Your task to perform on an android device: remove spam from my inbox in the gmail app Image 0: 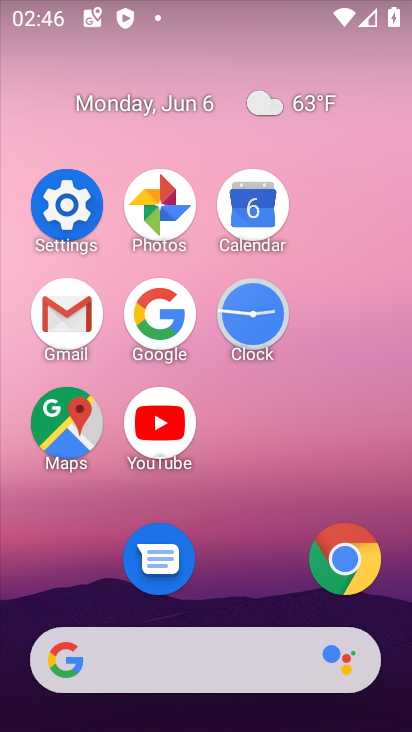
Step 0: click (63, 302)
Your task to perform on an android device: remove spam from my inbox in the gmail app Image 1: 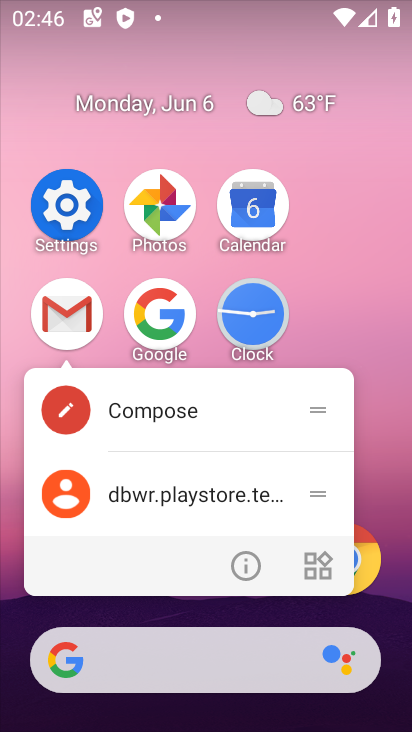
Step 1: click (54, 314)
Your task to perform on an android device: remove spam from my inbox in the gmail app Image 2: 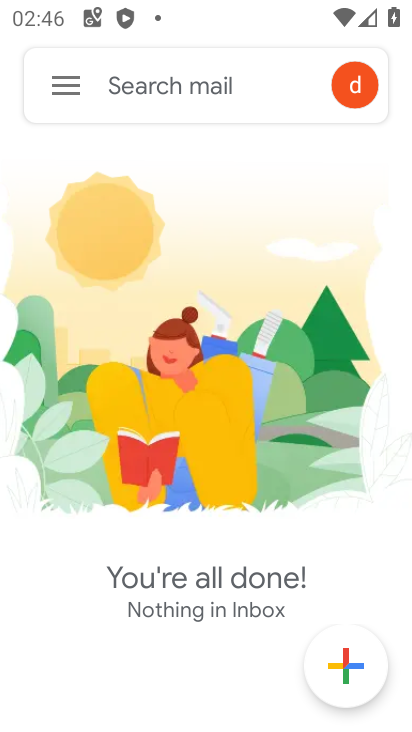
Step 2: click (48, 90)
Your task to perform on an android device: remove spam from my inbox in the gmail app Image 3: 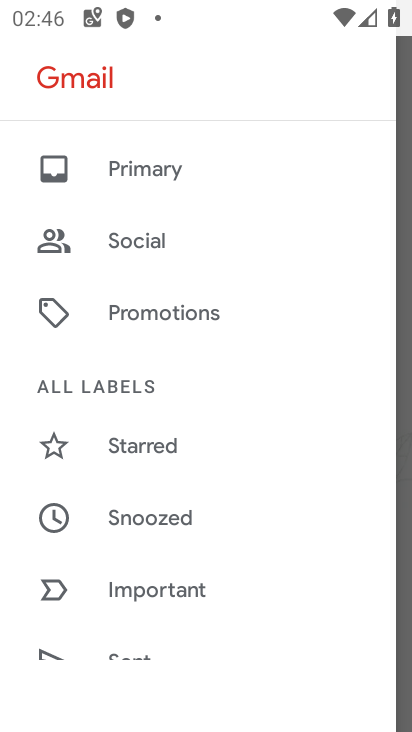
Step 3: drag from (254, 440) to (215, 172)
Your task to perform on an android device: remove spam from my inbox in the gmail app Image 4: 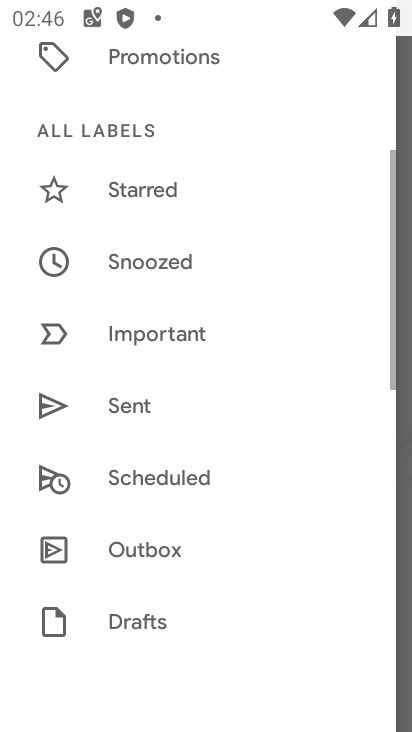
Step 4: drag from (220, 548) to (208, 195)
Your task to perform on an android device: remove spam from my inbox in the gmail app Image 5: 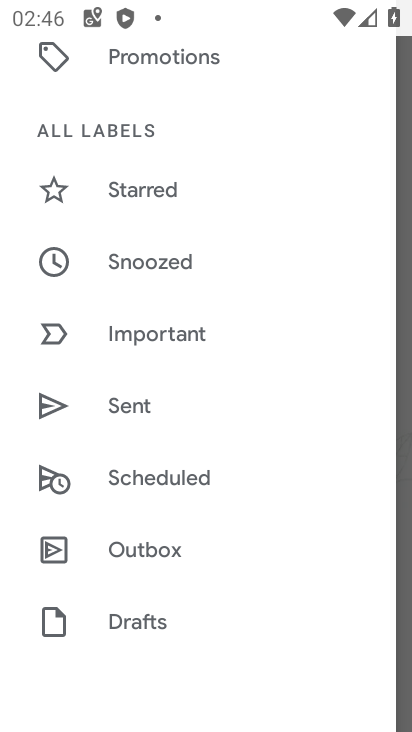
Step 5: drag from (236, 195) to (308, 600)
Your task to perform on an android device: remove spam from my inbox in the gmail app Image 6: 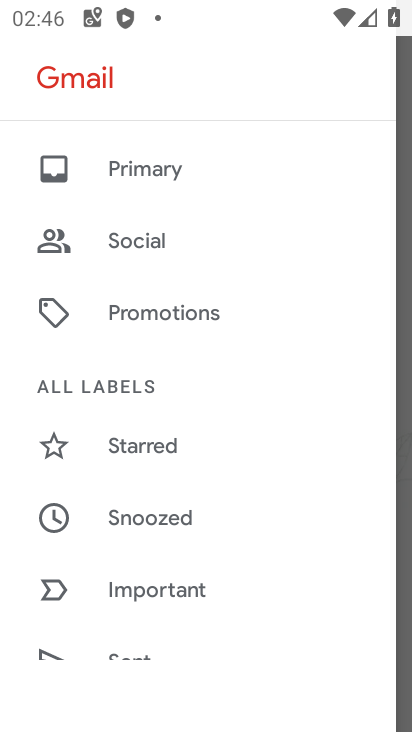
Step 6: drag from (256, 198) to (280, 539)
Your task to perform on an android device: remove spam from my inbox in the gmail app Image 7: 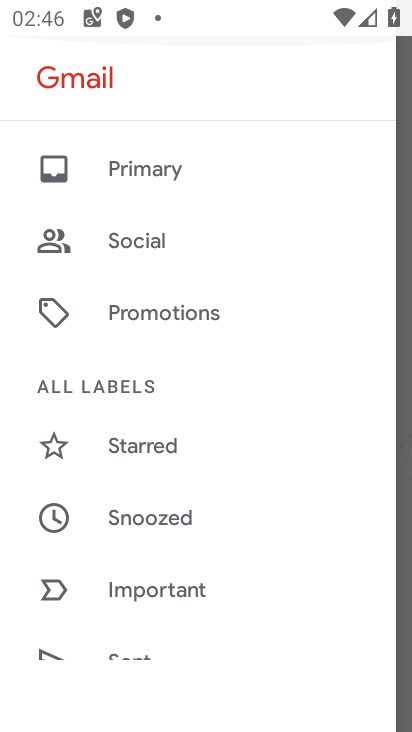
Step 7: drag from (236, 589) to (203, 143)
Your task to perform on an android device: remove spam from my inbox in the gmail app Image 8: 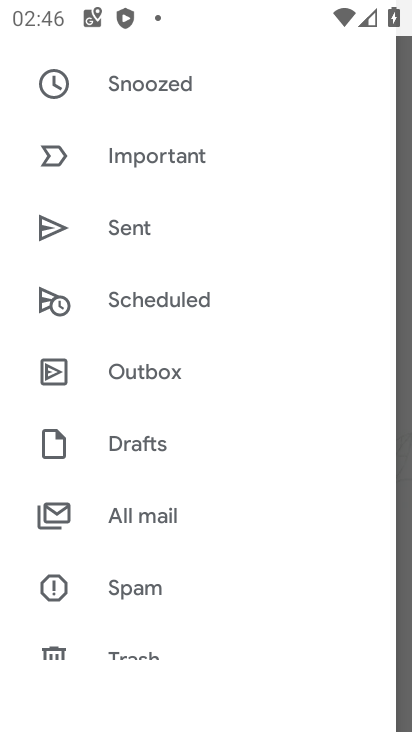
Step 8: click (169, 599)
Your task to perform on an android device: remove spam from my inbox in the gmail app Image 9: 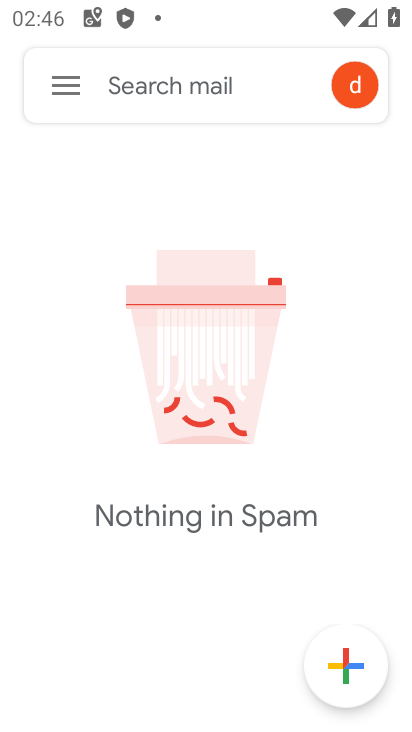
Step 9: task complete